Your task to perform on an android device: Go to Reddit.com Image 0: 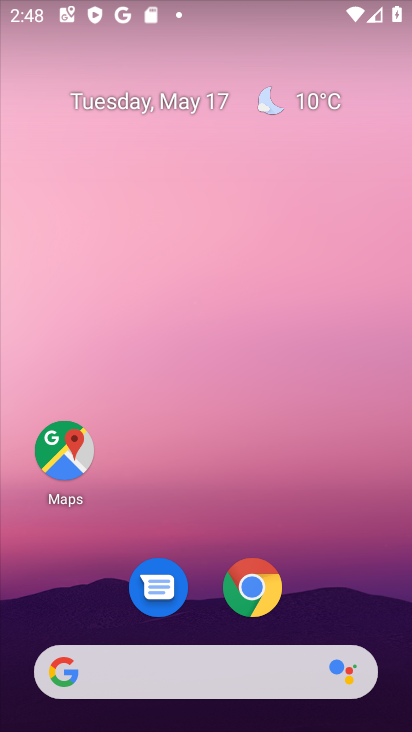
Step 0: drag from (333, 538) to (221, 22)
Your task to perform on an android device: Go to Reddit.com Image 1: 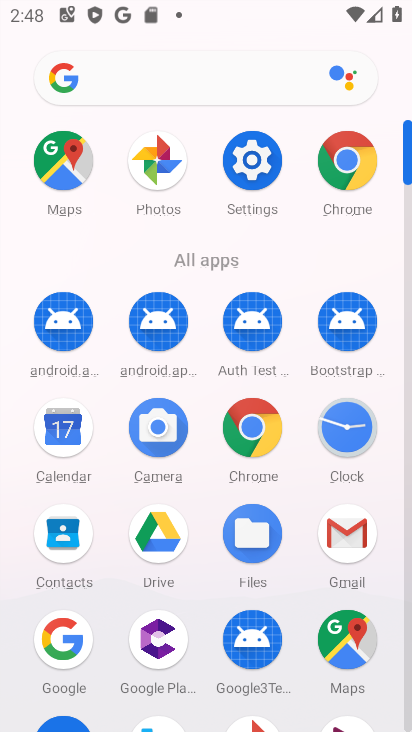
Step 1: click (344, 157)
Your task to perform on an android device: Go to Reddit.com Image 2: 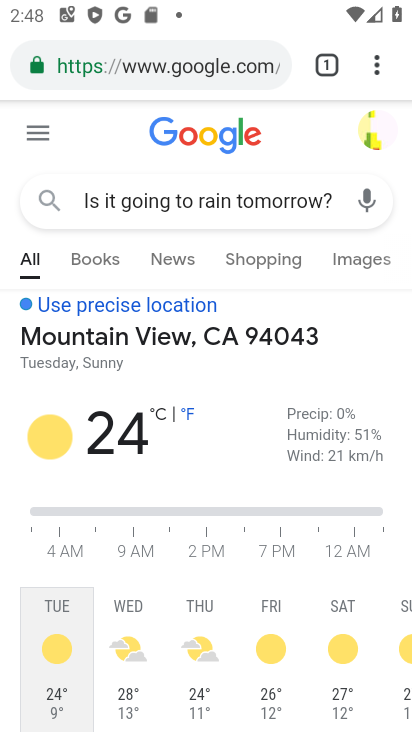
Step 2: click (207, 55)
Your task to perform on an android device: Go to Reddit.com Image 3: 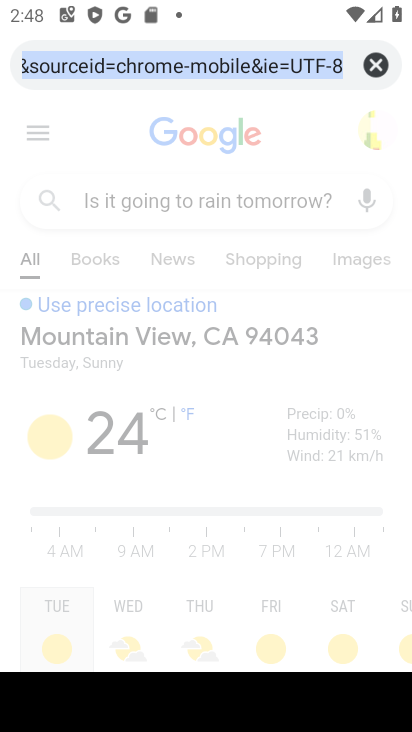
Step 3: click (377, 61)
Your task to perform on an android device: Go to Reddit.com Image 4: 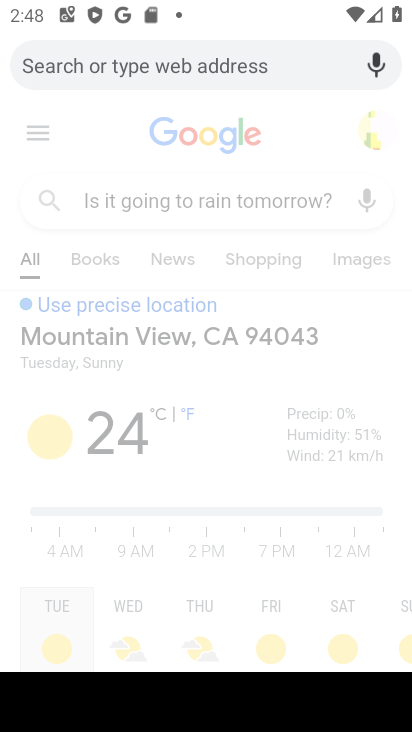
Step 4: type "Reddit.com"
Your task to perform on an android device: Go to Reddit.com Image 5: 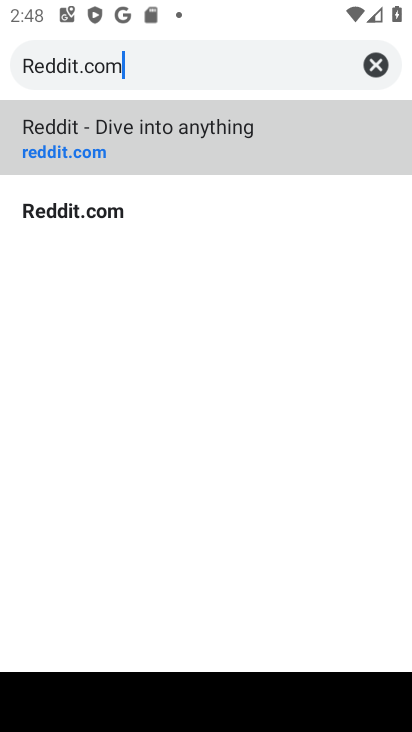
Step 5: type ""
Your task to perform on an android device: Go to Reddit.com Image 6: 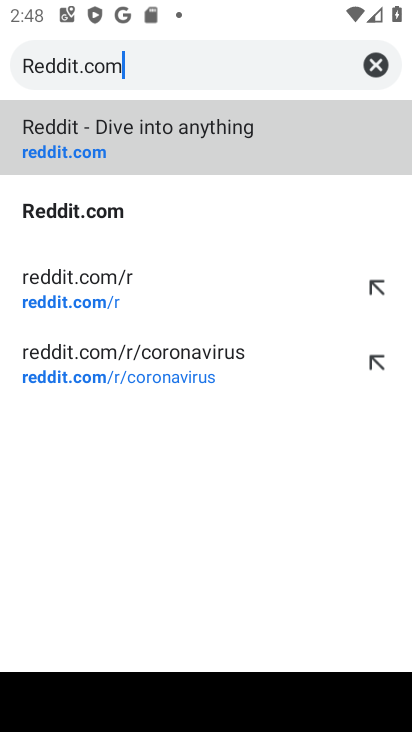
Step 6: click (125, 148)
Your task to perform on an android device: Go to Reddit.com Image 7: 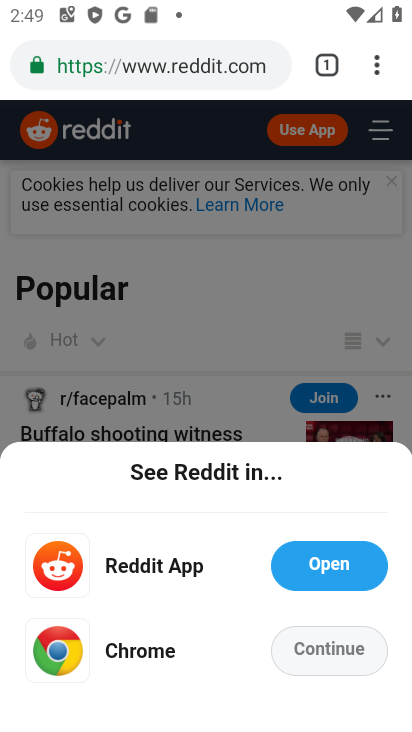
Step 7: task complete